Your task to perform on an android device: make emails show in primary in the gmail app Image 0: 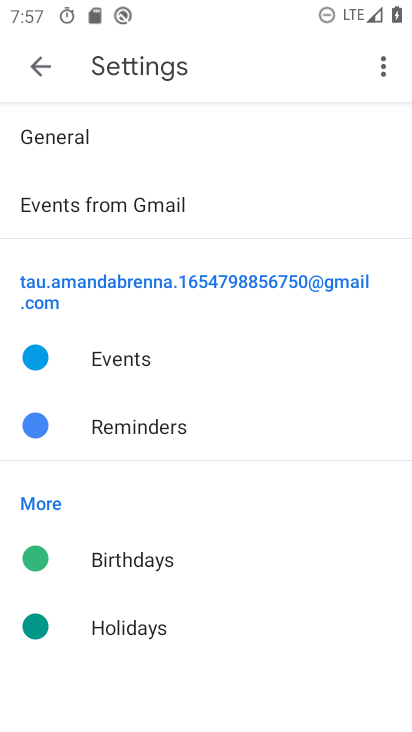
Step 0: press home button
Your task to perform on an android device: make emails show in primary in the gmail app Image 1: 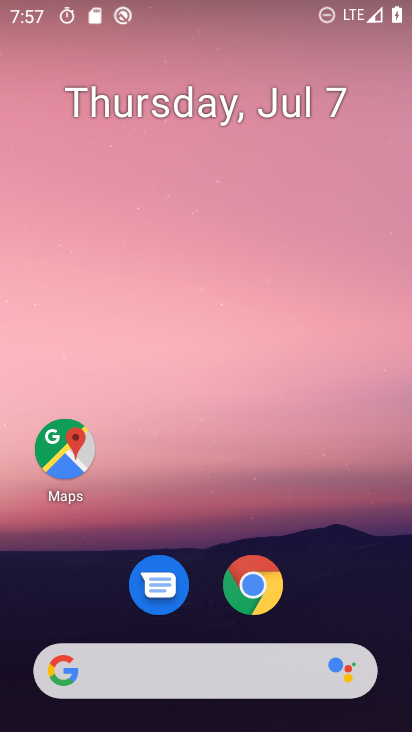
Step 1: drag from (188, 683) to (283, 105)
Your task to perform on an android device: make emails show in primary in the gmail app Image 2: 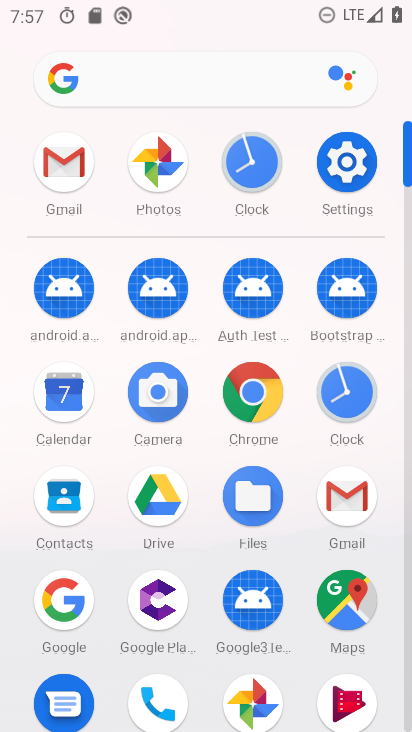
Step 2: click (340, 500)
Your task to perform on an android device: make emails show in primary in the gmail app Image 3: 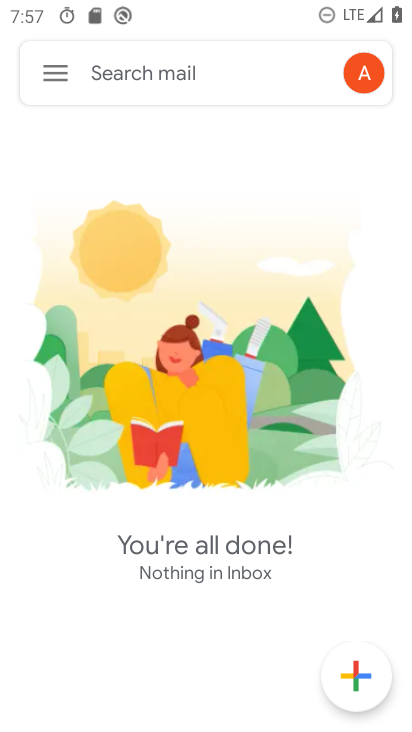
Step 3: click (59, 76)
Your task to perform on an android device: make emails show in primary in the gmail app Image 4: 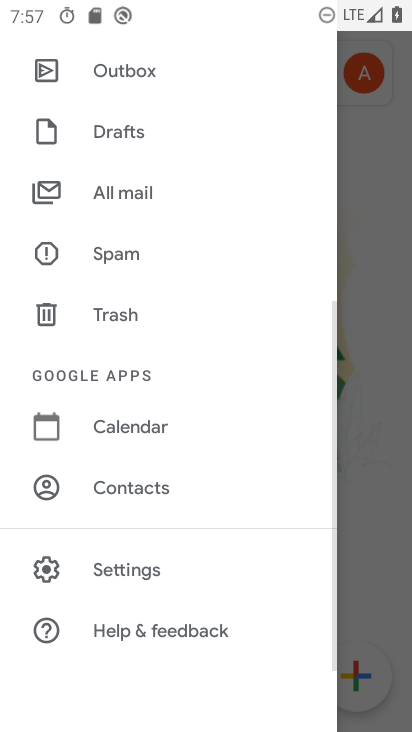
Step 4: click (149, 563)
Your task to perform on an android device: make emails show in primary in the gmail app Image 5: 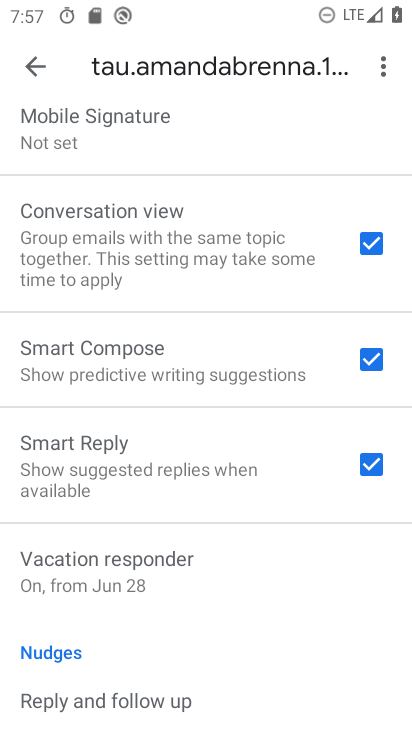
Step 5: task complete